Your task to perform on an android device: uninstall "Etsy: Buy & Sell Unique Items" Image 0: 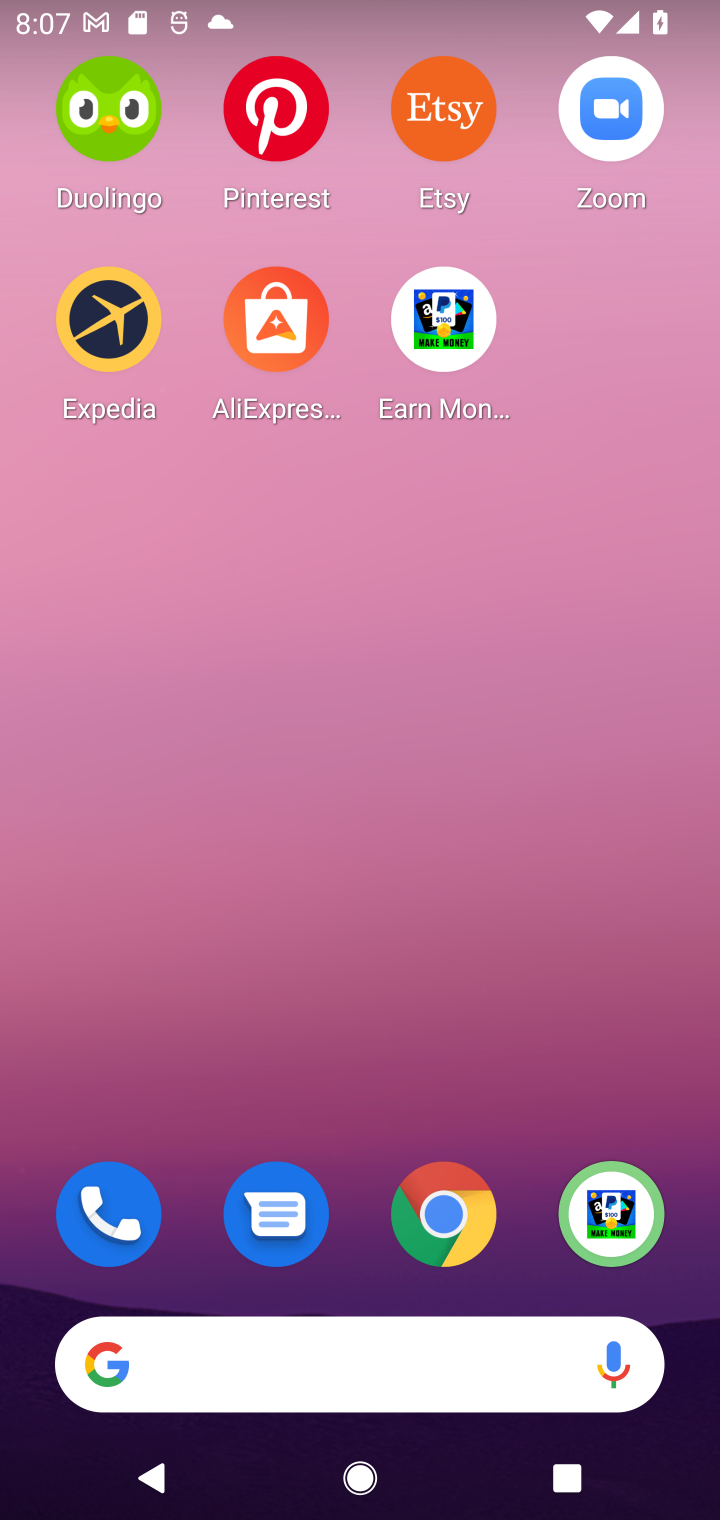
Step 0: drag from (390, 1064) to (521, 300)
Your task to perform on an android device: uninstall "Etsy: Buy & Sell Unique Items" Image 1: 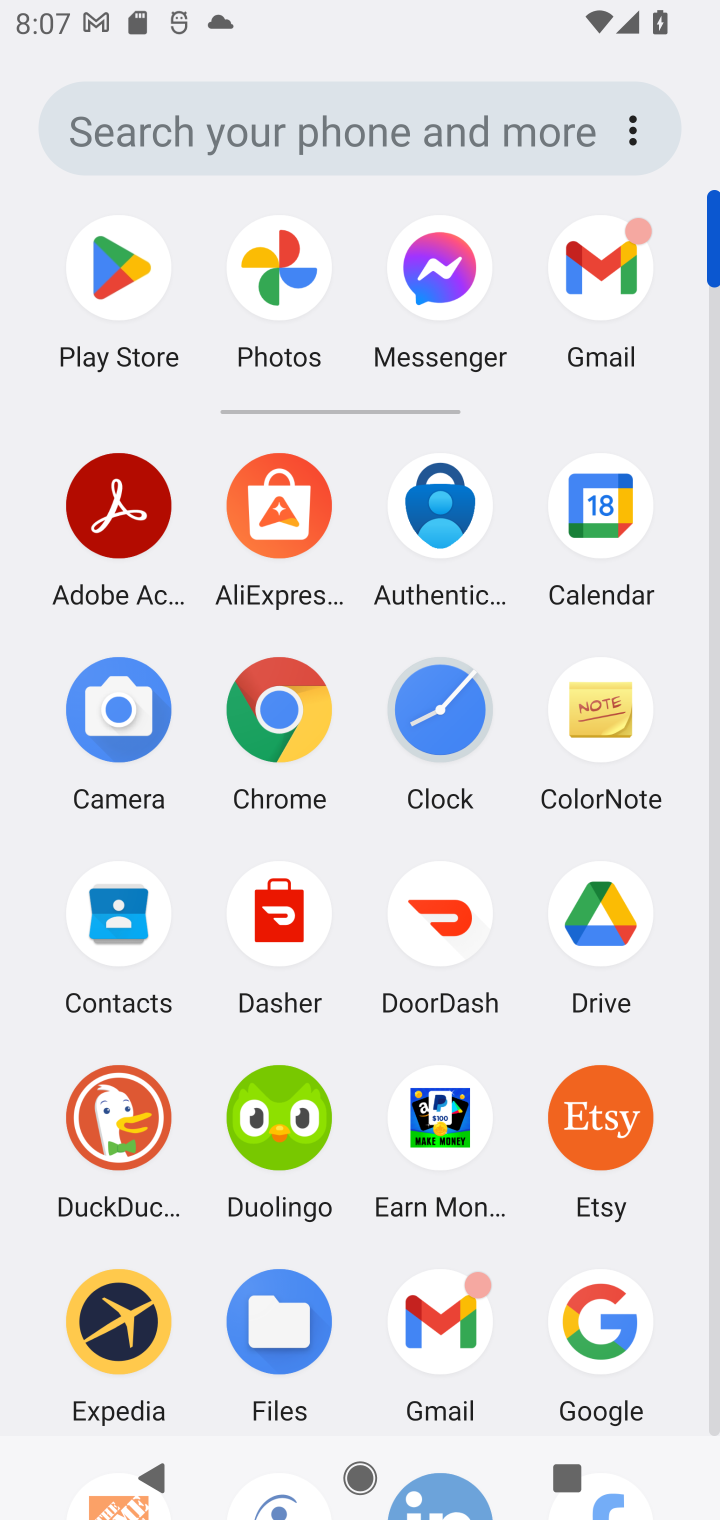
Step 1: click (627, 1115)
Your task to perform on an android device: uninstall "Etsy: Buy & Sell Unique Items" Image 2: 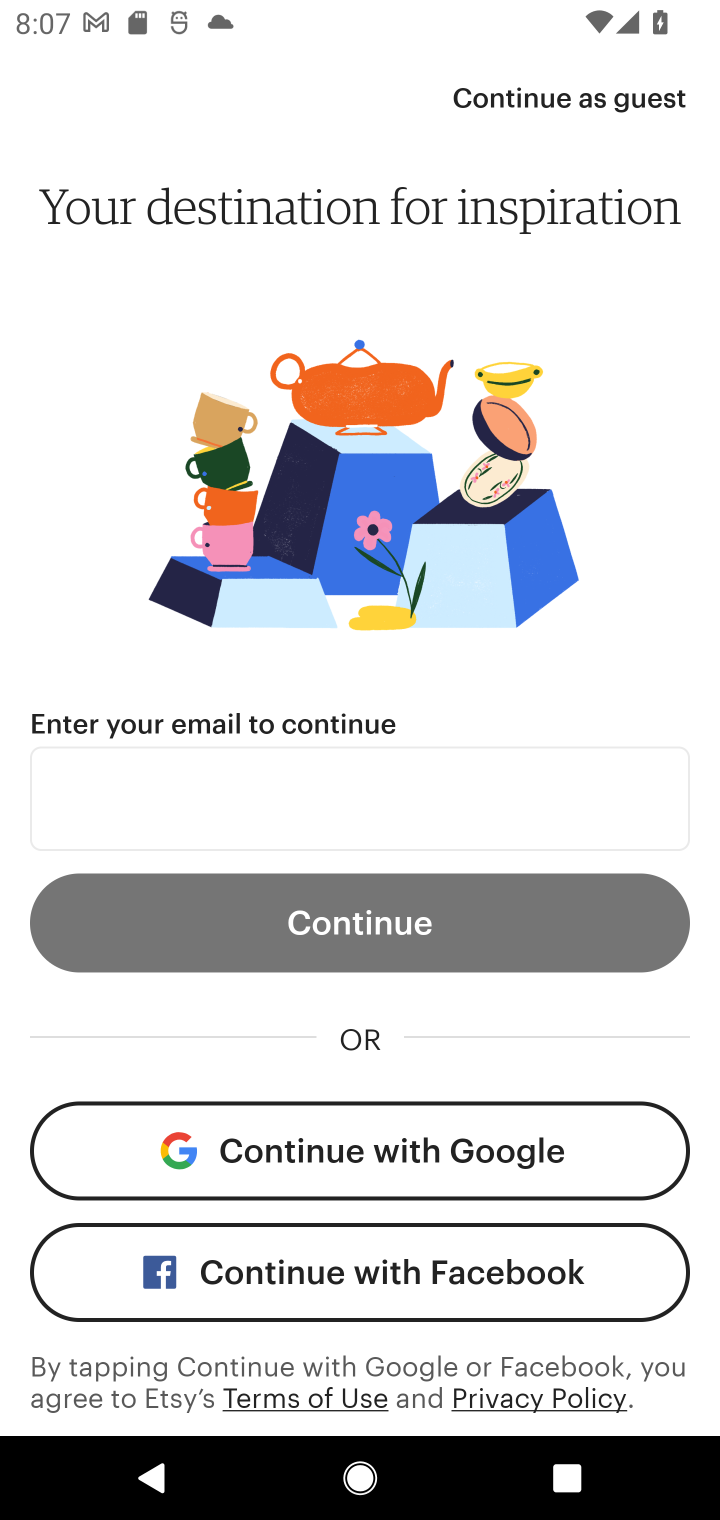
Step 2: press back button
Your task to perform on an android device: uninstall "Etsy: Buy & Sell Unique Items" Image 3: 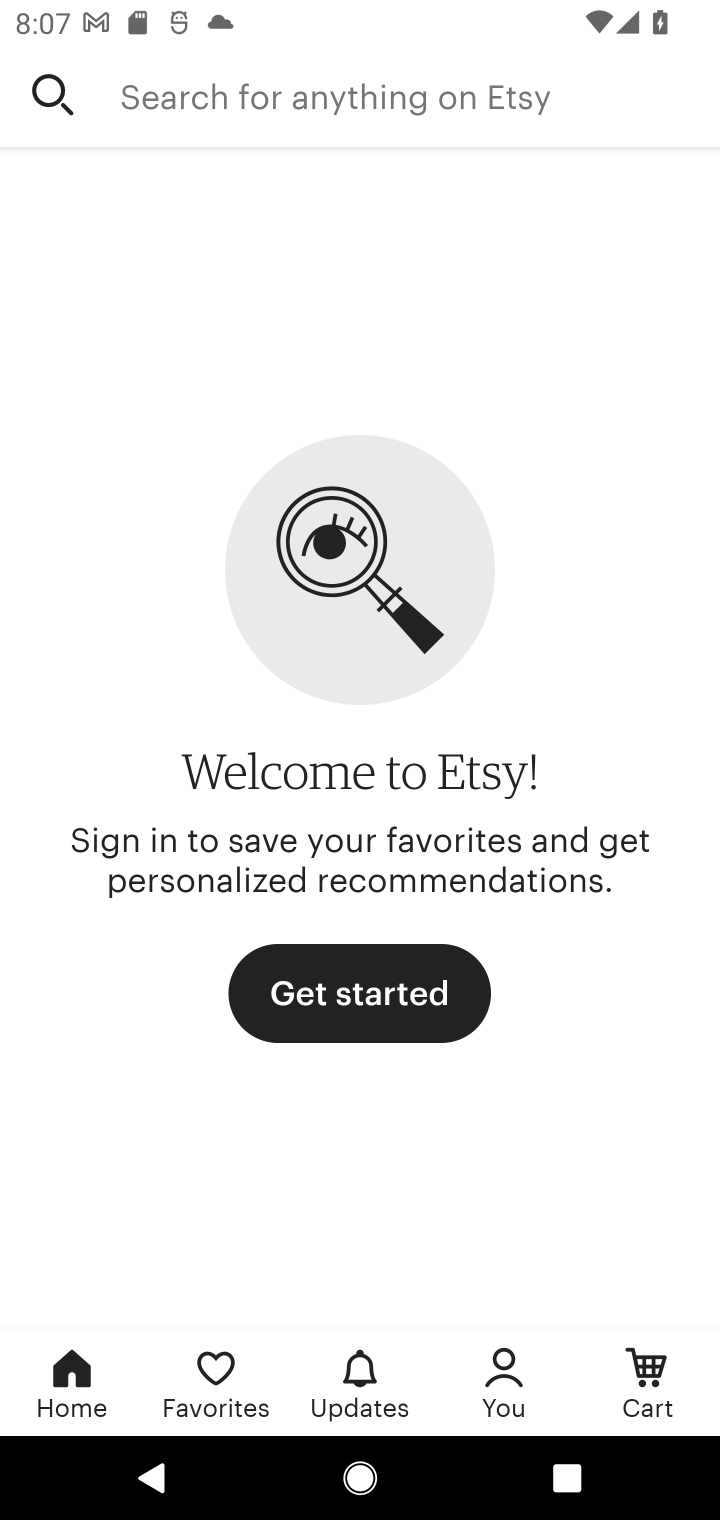
Step 3: press back button
Your task to perform on an android device: uninstall "Etsy: Buy & Sell Unique Items" Image 4: 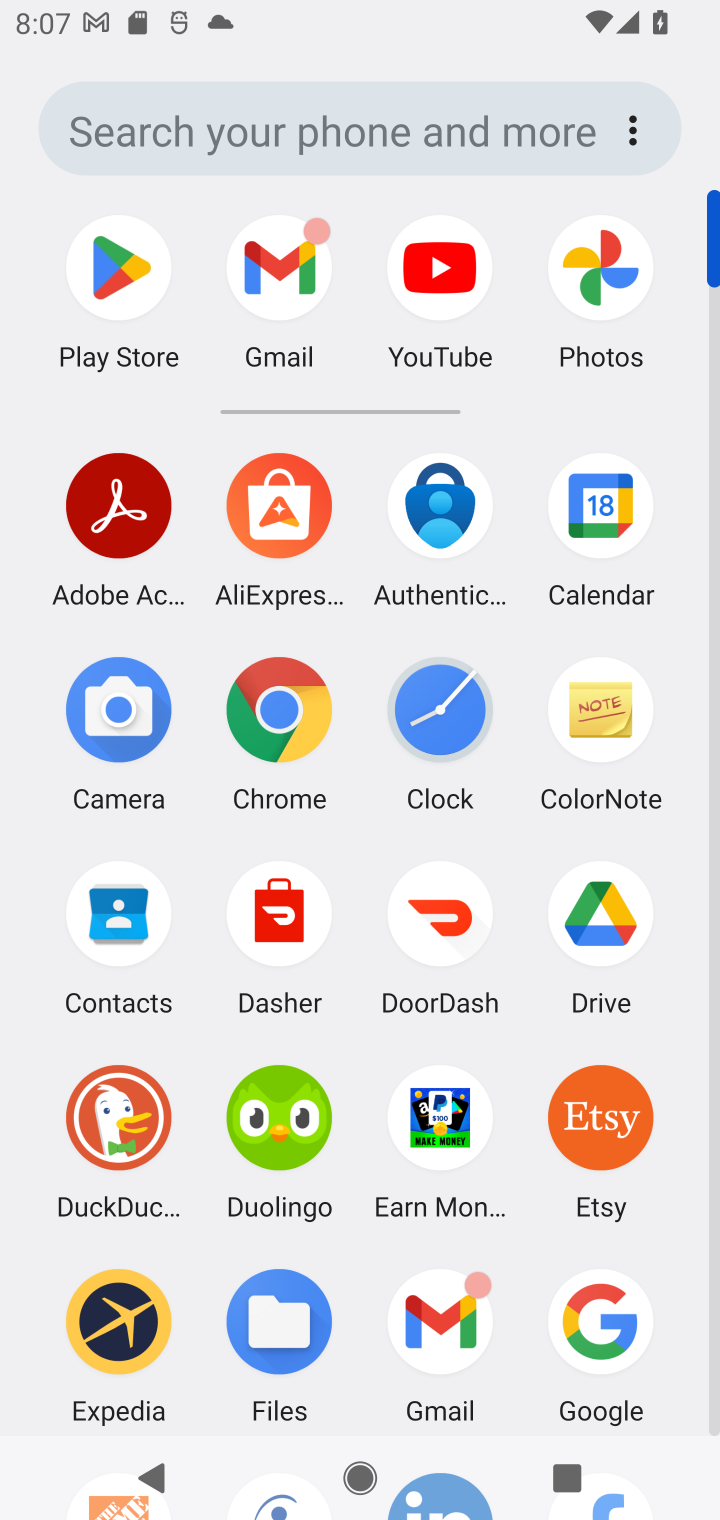
Step 4: click (595, 1131)
Your task to perform on an android device: uninstall "Etsy: Buy & Sell Unique Items" Image 5: 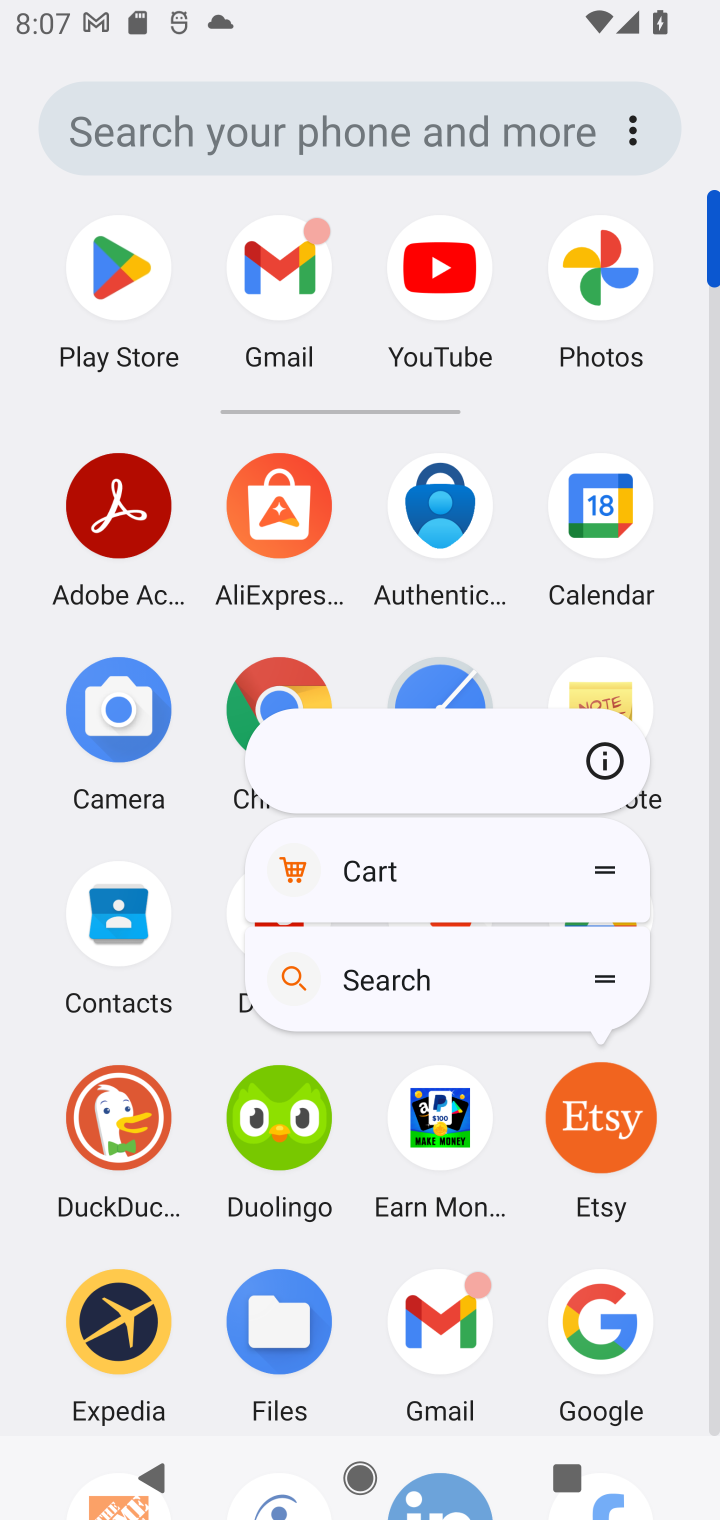
Step 5: click (600, 762)
Your task to perform on an android device: uninstall "Etsy: Buy & Sell Unique Items" Image 6: 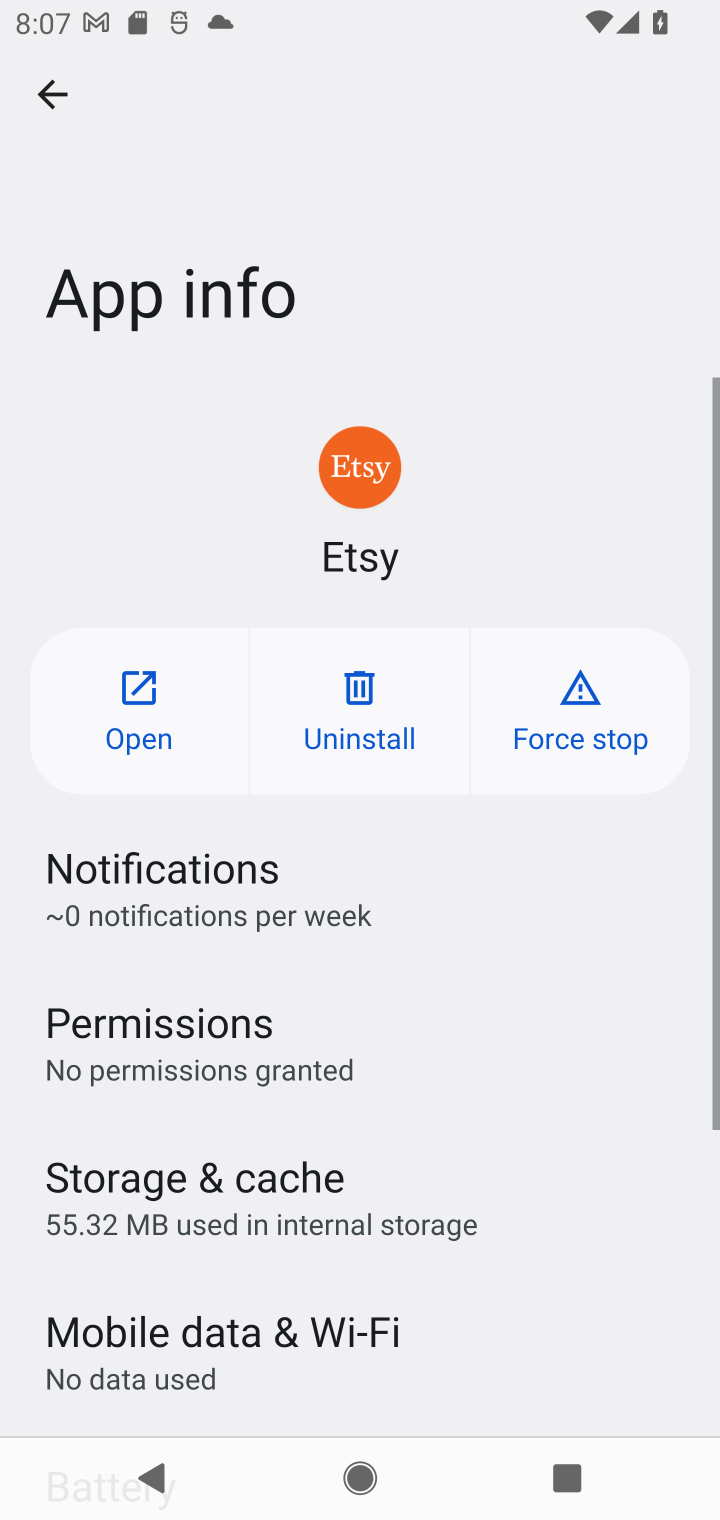
Step 6: click (366, 693)
Your task to perform on an android device: uninstall "Etsy: Buy & Sell Unique Items" Image 7: 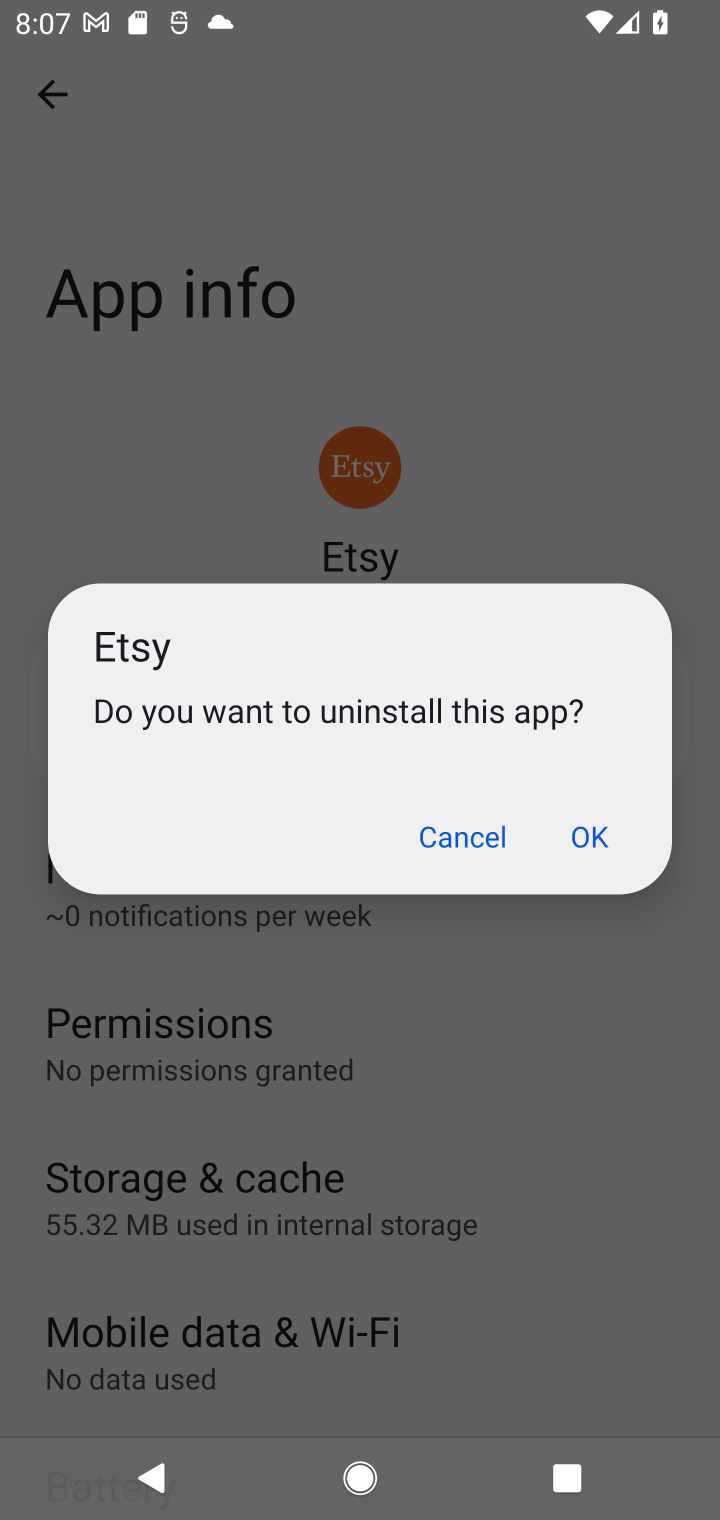
Step 7: click (610, 827)
Your task to perform on an android device: uninstall "Etsy: Buy & Sell Unique Items" Image 8: 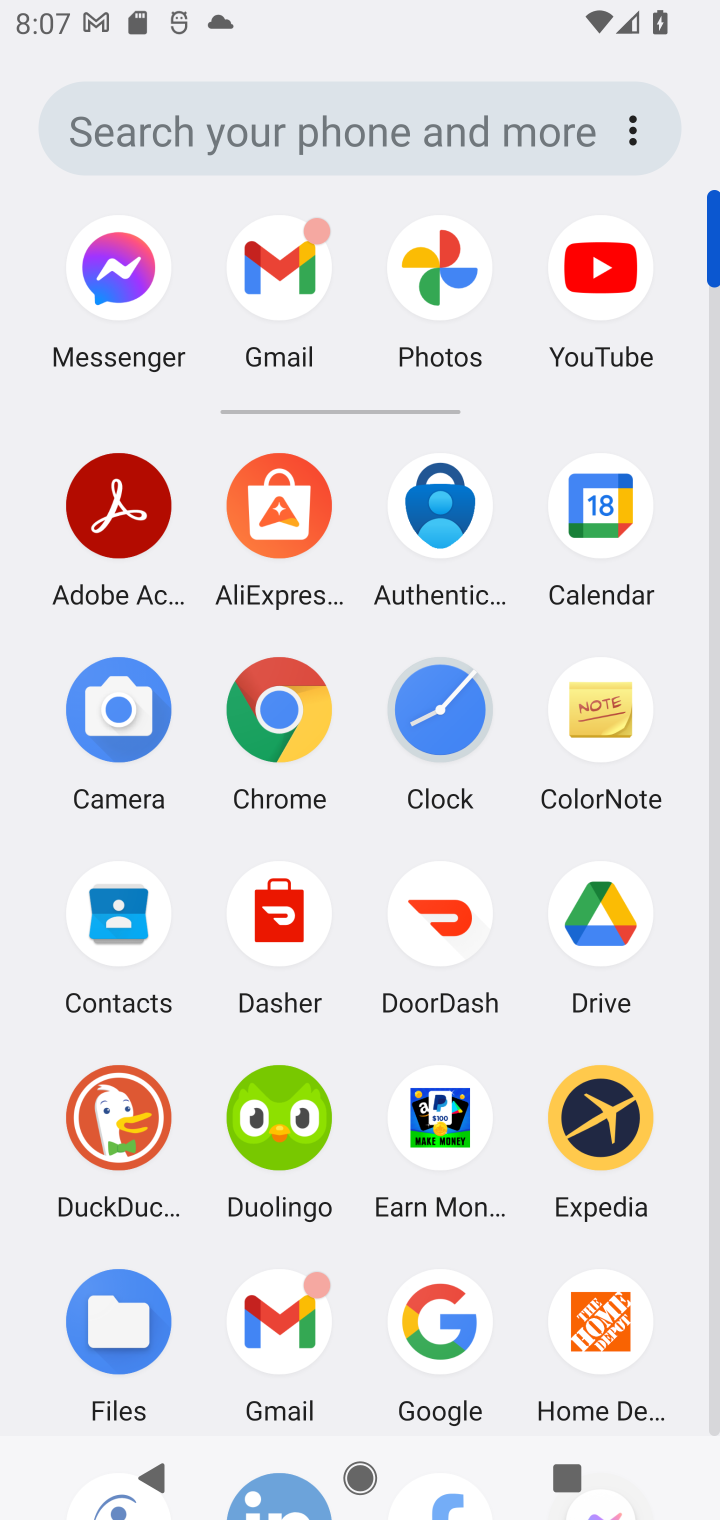
Step 8: task complete